Your task to perform on an android device: Go to accessibility settings Image 0: 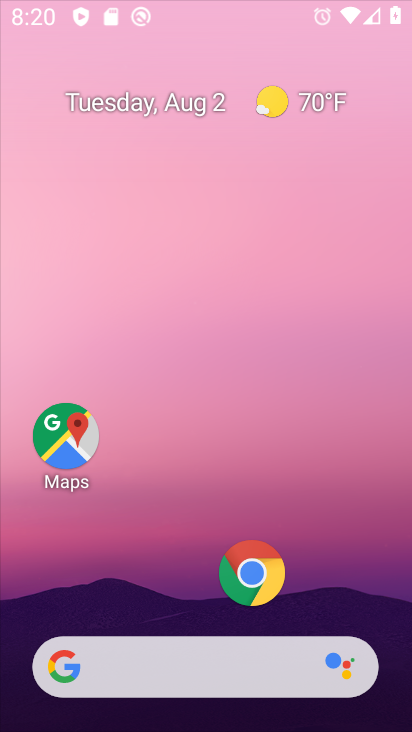
Step 0: press home button
Your task to perform on an android device: Go to accessibility settings Image 1: 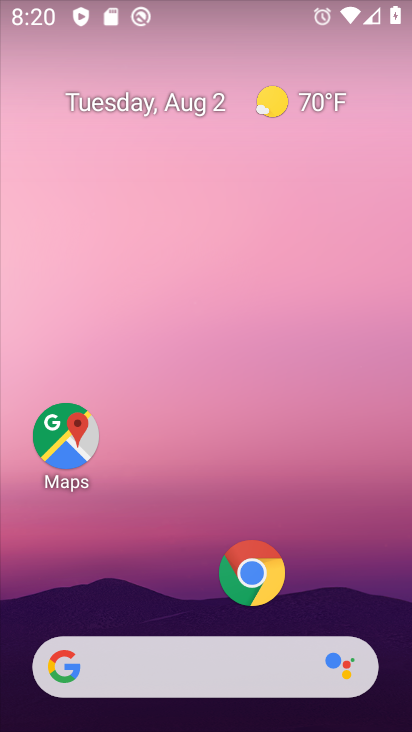
Step 1: drag from (188, 603) to (182, 45)
Your task to perform on an android device: Go to accessibility settings Image 2: 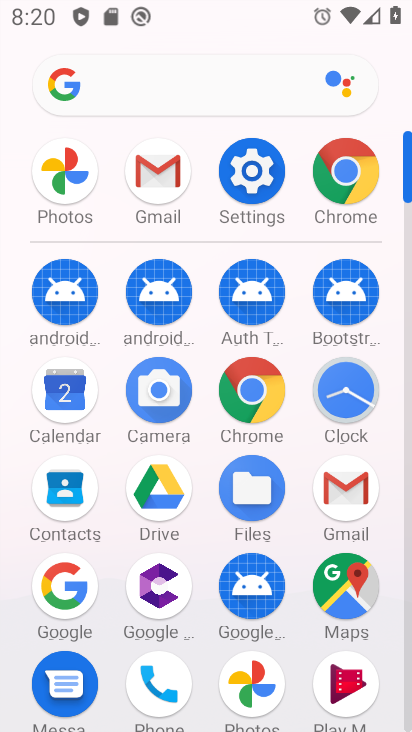
Step 2: click (246, 167)
Your task to perform on an android device: Go to accessibility settings Image 3: 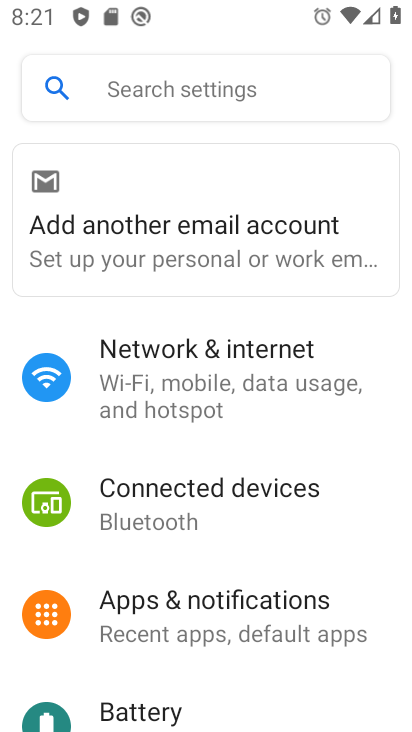
Step 3: drag from (224, 667) to (240, 135)
Your task to perform on an android device: Go to accessibility settings Image 4: 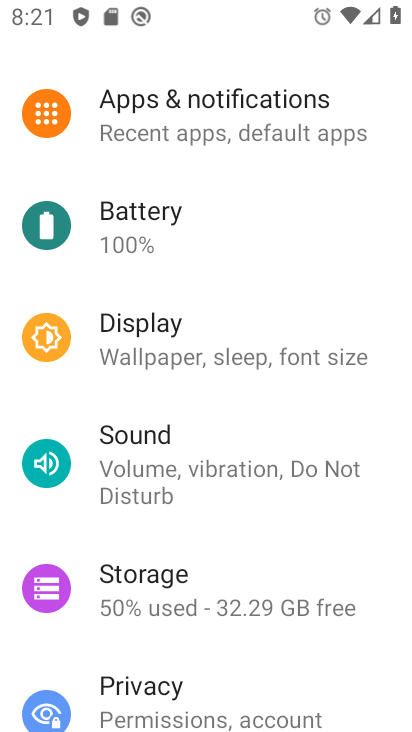
Step 4: drag from (231, 671) to (212, 144)
Your task to perform on an android device: Go to accessibility settings Image 5: 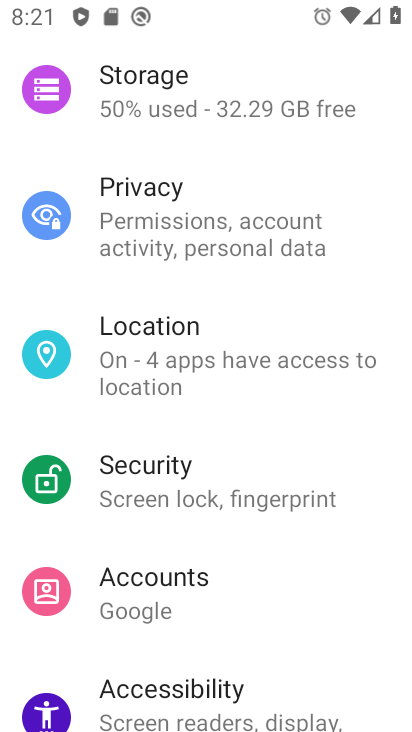
Step 5: click (254, 695)
Your task to perform on an android device: Go to accessibility settings Image 6: 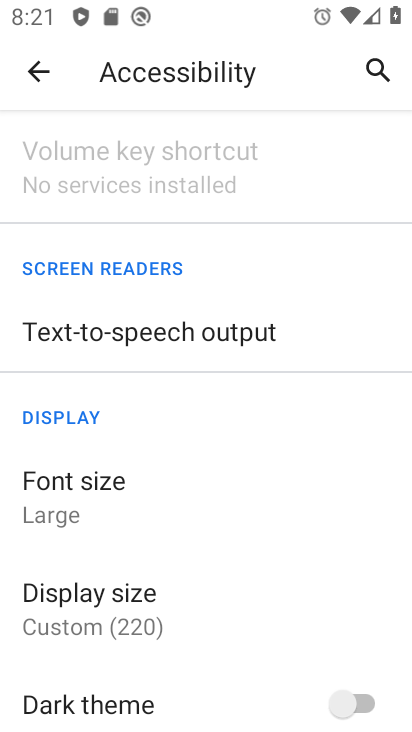
Step 6: task complete